Your task to perform on an android device: Search for sushi restaurants on Maps Image 0: 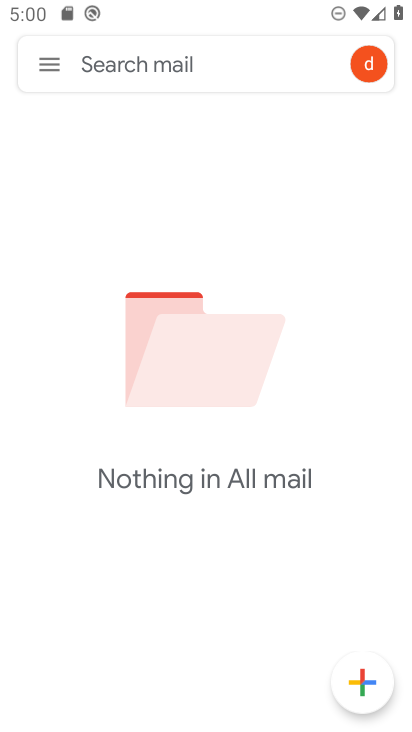
Step 0: press back button
Your task to perform on an android device: Search for sushi restaurants on Maps Image 1: 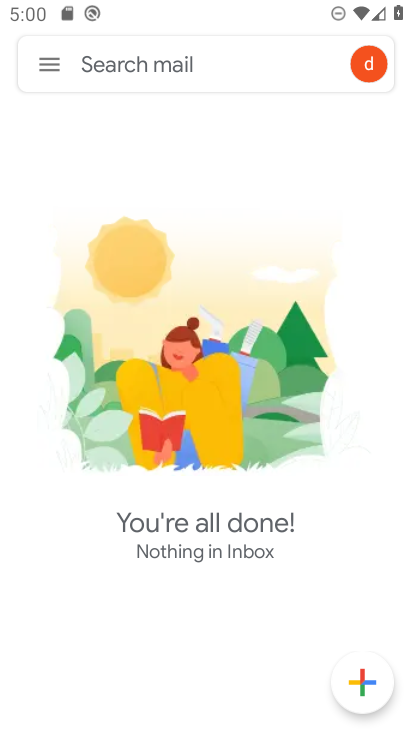
Step 1: press back button
Your task to perform on an android device: Search for sushi restaurants on Maps Image 2: 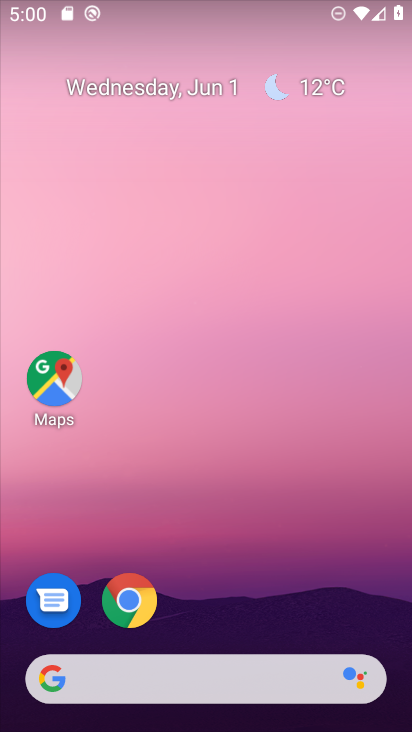
Step 2: click (49, 378)
Your task to perform on an android device: Search for sushi restaurants on Maps Image 3: 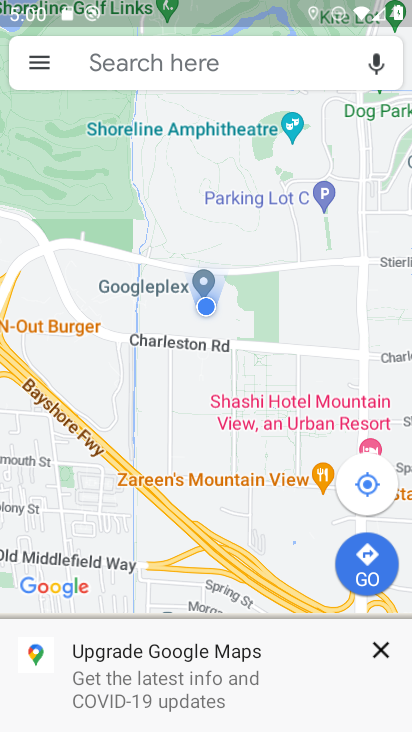
Step 3: click (225, 47)
Your task to perform on an android device: Search for sushi restaurants on Maps Image 4: 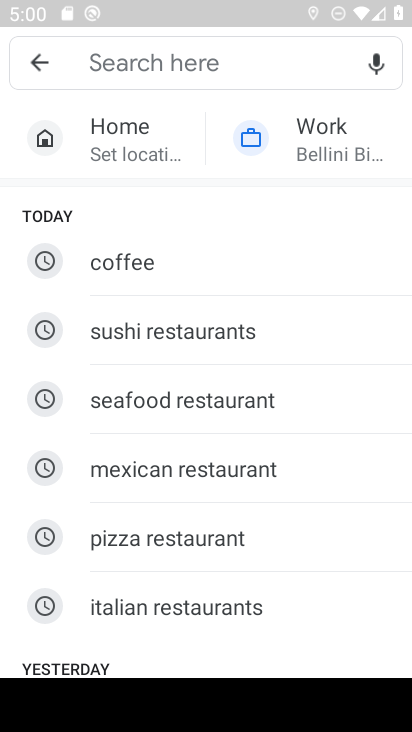
Step 4: click (239, 357)
Your task to perform on an android device: Search for sushi restaurants on Maps Image 5: 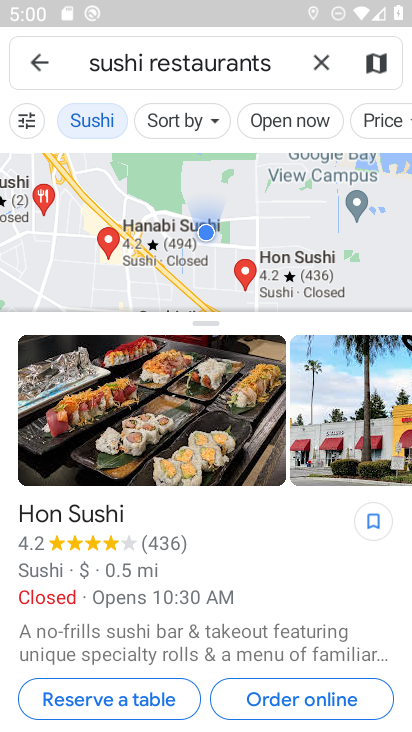
Step 5: task complete